Your task to perform on an android device: Open Youtube and go to "Your channel" Image 0: 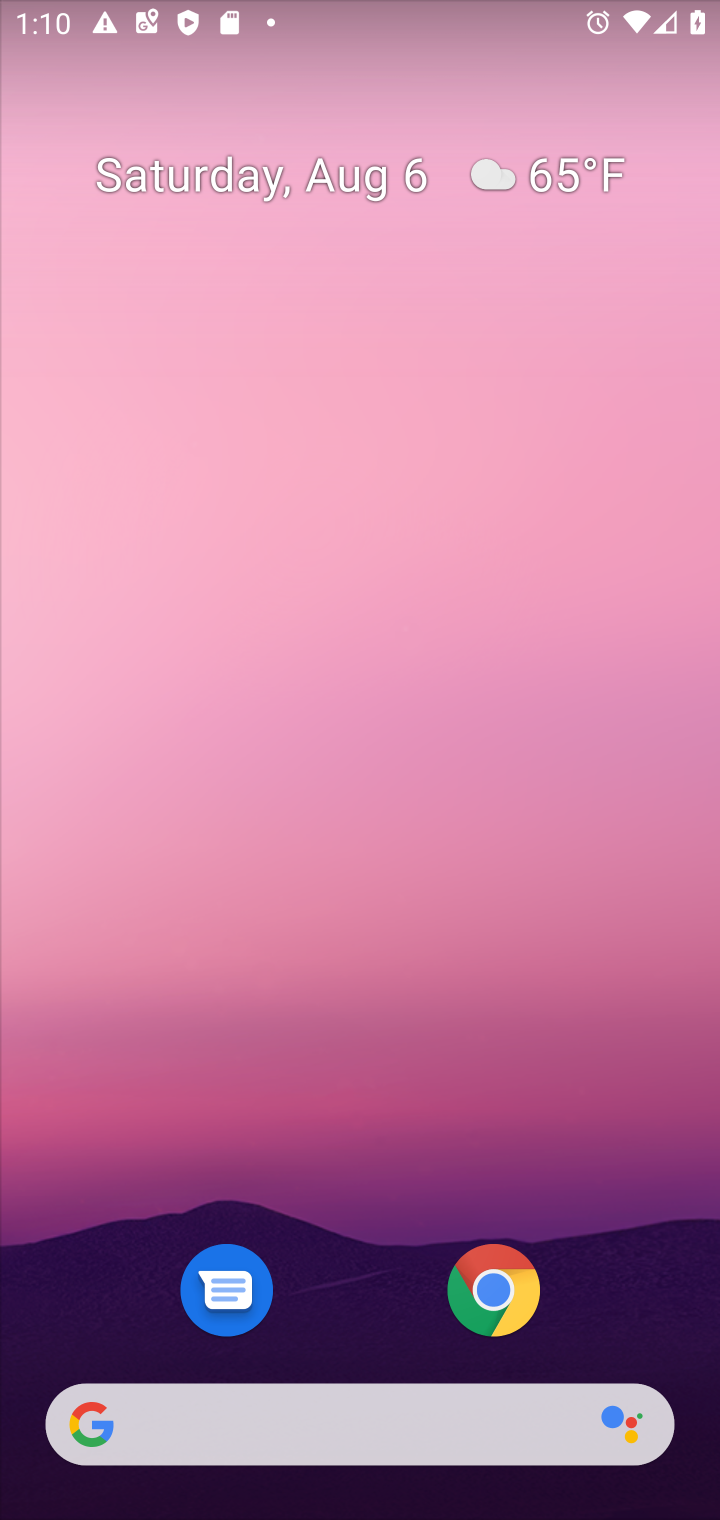
Step 0: drag from (364, 1312) to (340, 333)
Your task to perform on an android device: Open Youtube and go to "Your channel" Image 1: 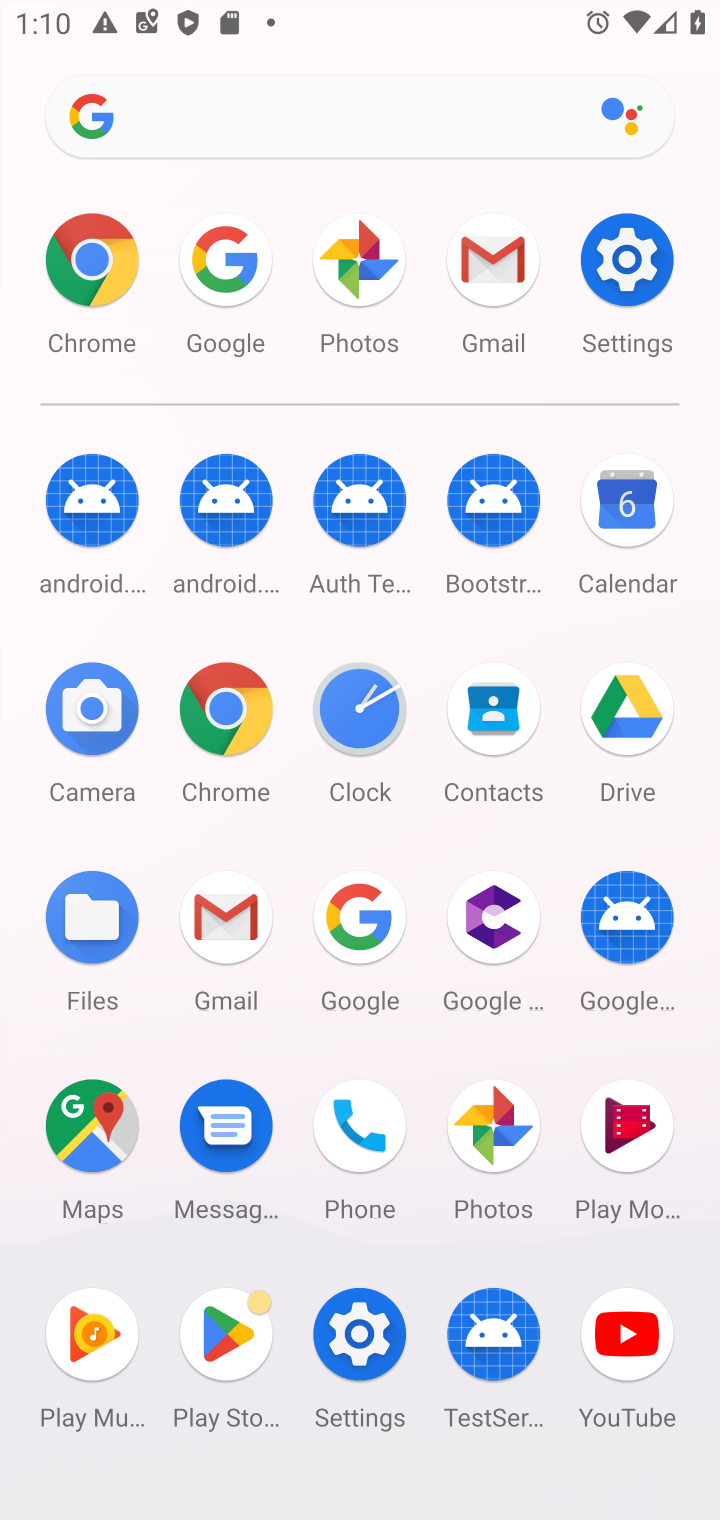
Step 1: click (620, 1325)
Your task to perform on an android device: Open Youtube and go to "Your channel" Image 2: 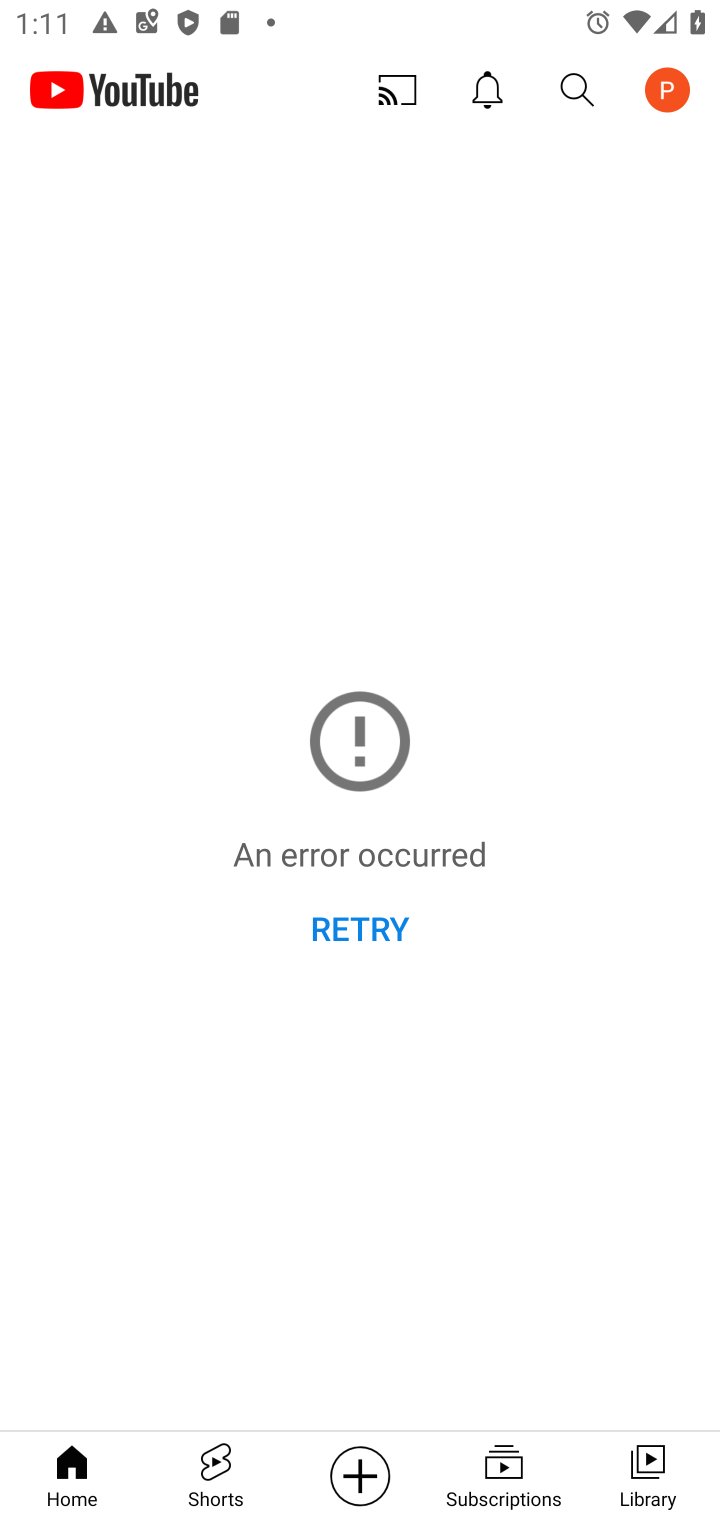
Step 2: click (675, 80)
Your task to perform on an android device: Open Youtube and go to "Your channel" Image 3: 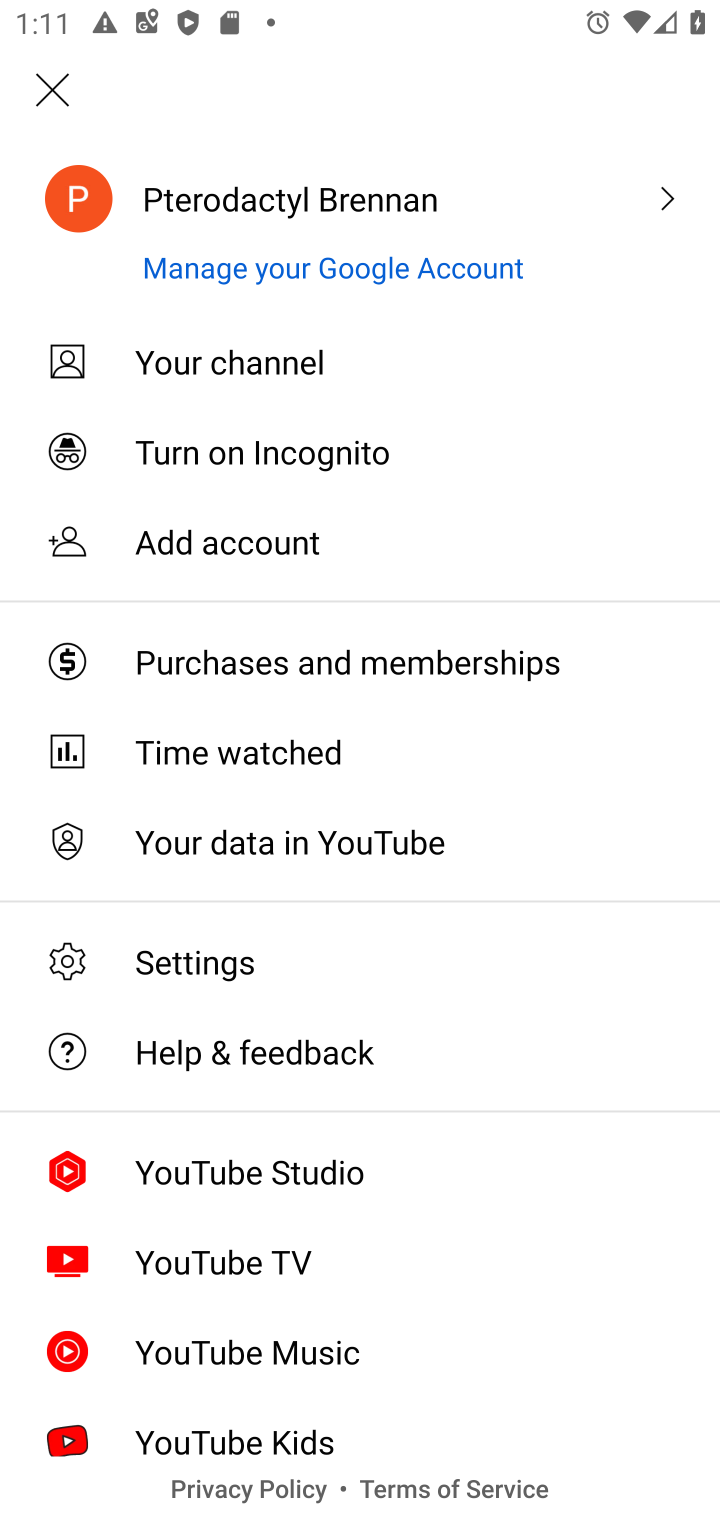
Step 3: click (342, 359)
Your task to perform on an android device: Open Youtube and go to "Your channel" Image 4: 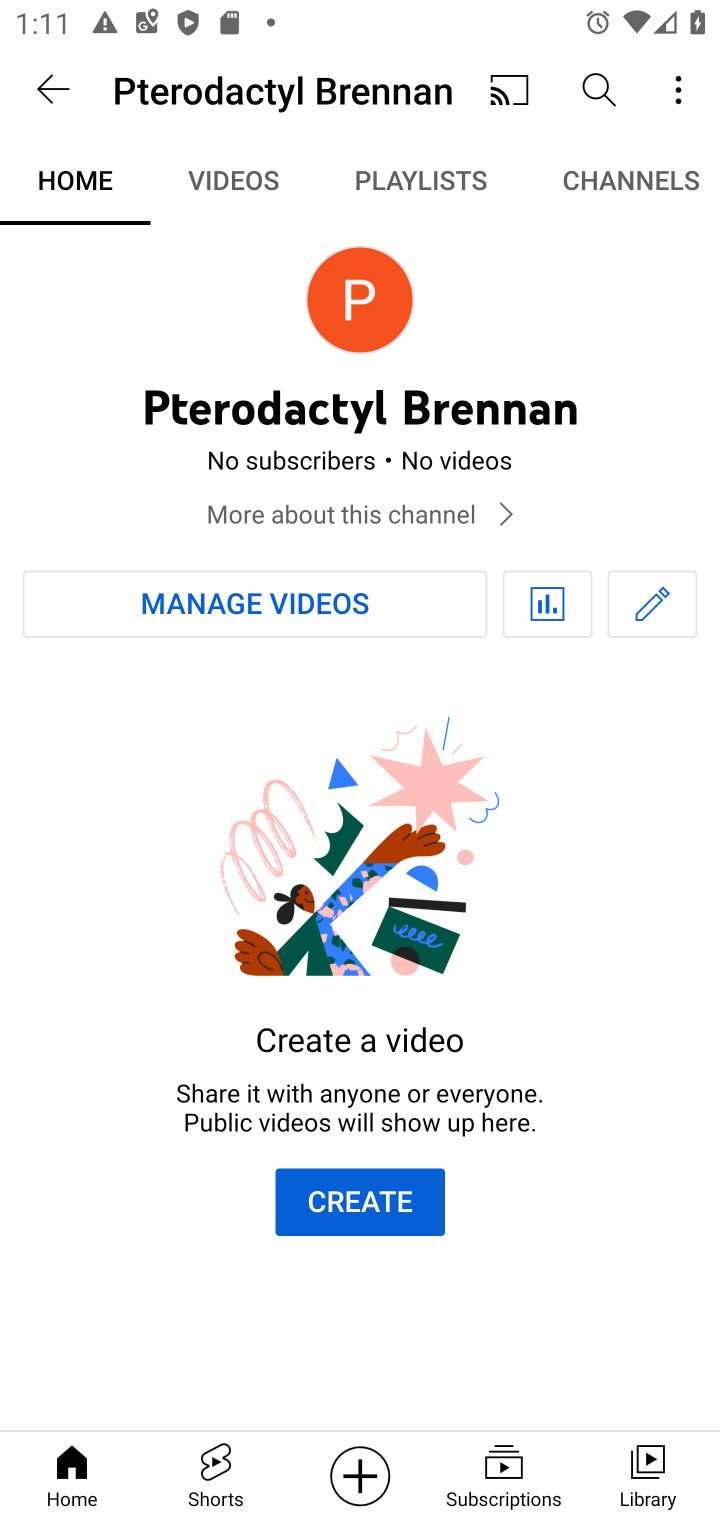
Step 4: task complete